Your task to perform on an android device: Go to Yahoo.com Image 0: 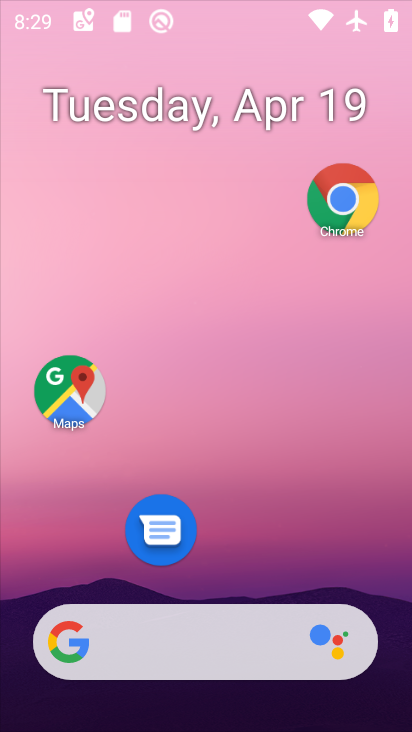
Step 0: click (335, 79)
Your task to perform on an android device: Go to Yahoo.com Image 1: 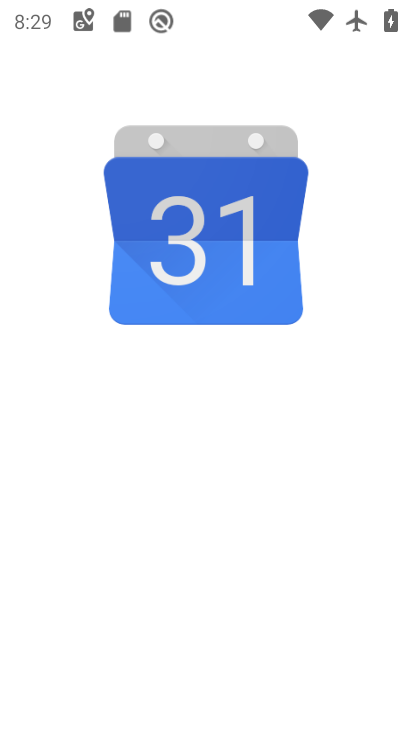
Step 1: drag from (212, 579) to (262, 224)
Your task to perform on an android device: Go to Yahoo.com Image 2: 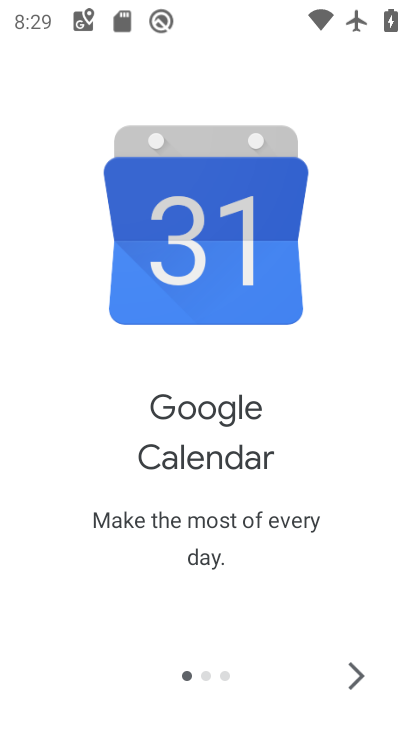
Step 2: press home button
Your task to perform on an android device: Go to Yahoo.com Image 3: 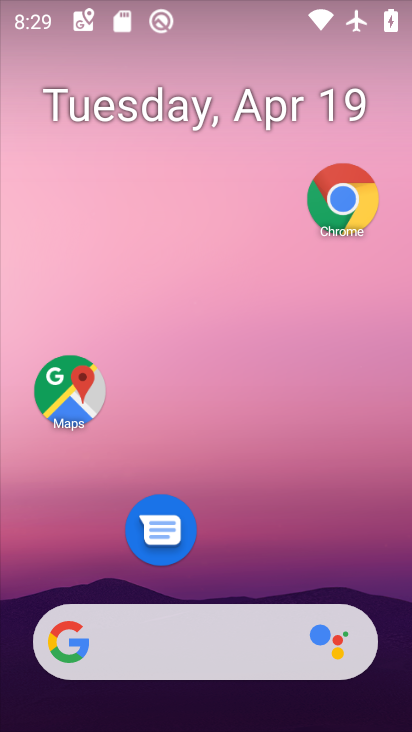
Step 3: click (354, 194)
Your task to perform on an android device: Go to Yahoo.com Image 4: 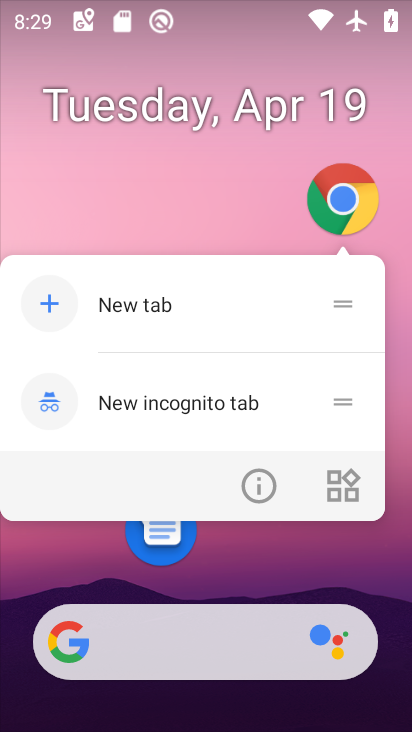
Step 4: click (257, 485)
Your task to perform on an android device: Go to Yahoo.com Image 5: 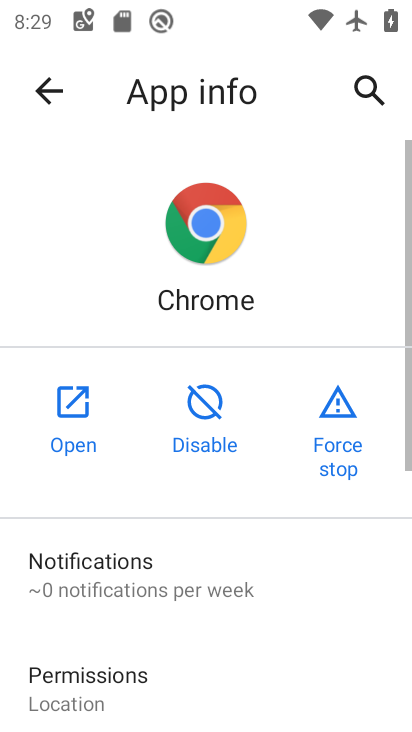
Step 5: click (66, 405)
Your task to perform on an android device: Go to Yahoo.com Image 6: 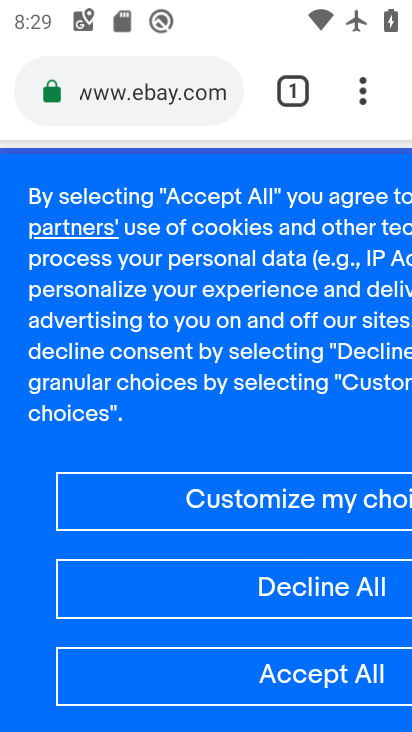
Step 6: click (362, 72)
Your task to perform on an android device: Go to Yahoo.com Image 7: 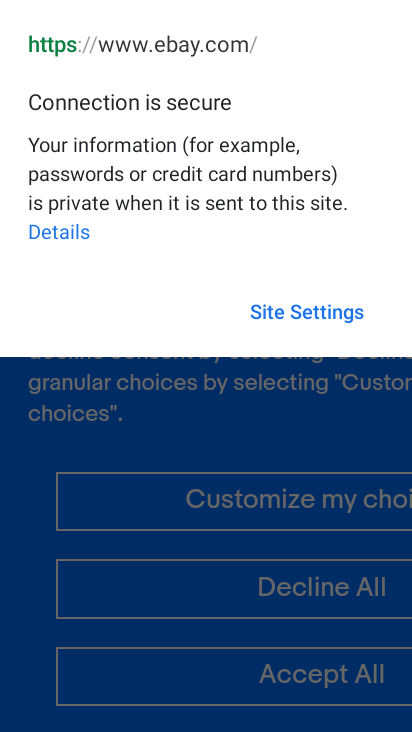
Step 7: click (253, 393)
Your task to perform on an android device: Go to Yahoo.com Image 8: 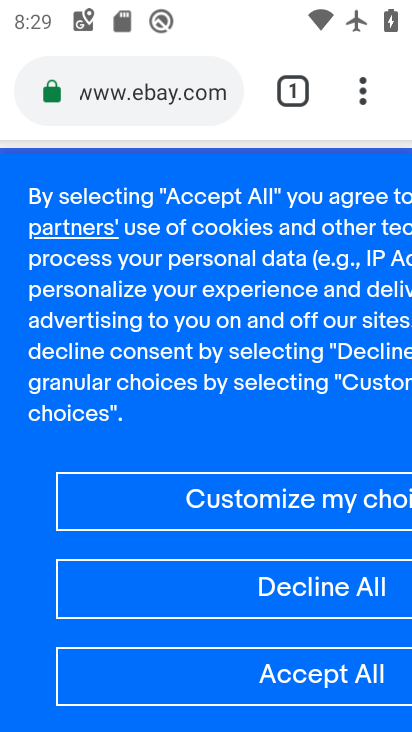
Step 8: click (190, 95)
Your task to perform on an android device: Go to Yahoo.com Image 9: 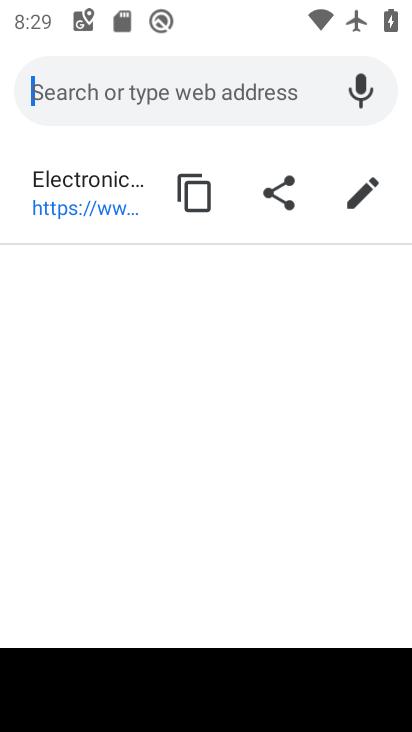
Step 9: type "yahoo.com"
Your task to perform on an android device: Go to Yahoo.com Image 10: 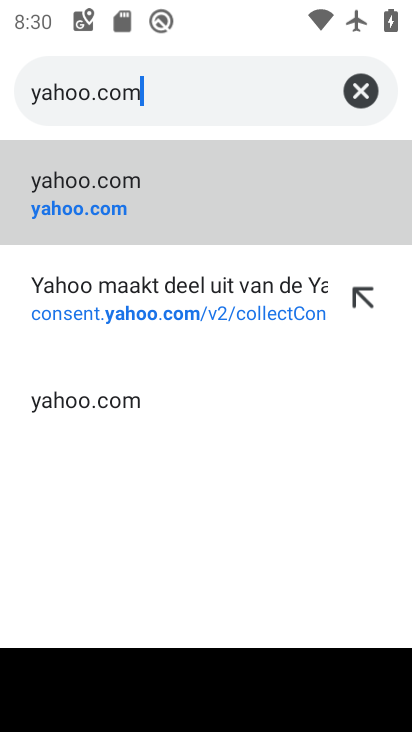
Step 10: click (50, 181)
Your task to perform on an android device: Go to Yahoo.com Image 11: 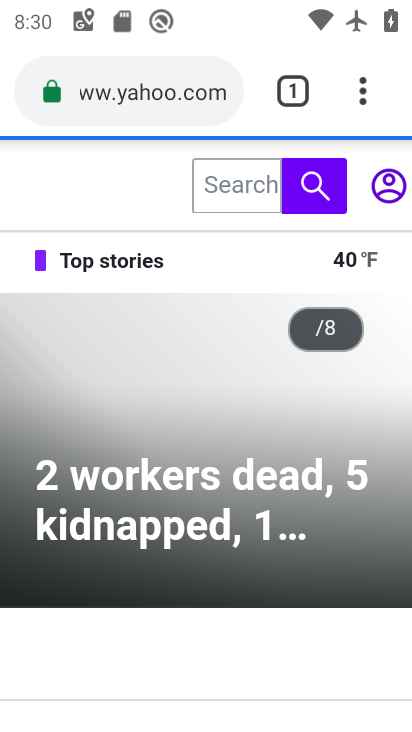
Step 11: task complete